Your task to perform on an android device: Go to Yahoo.com Image 0: 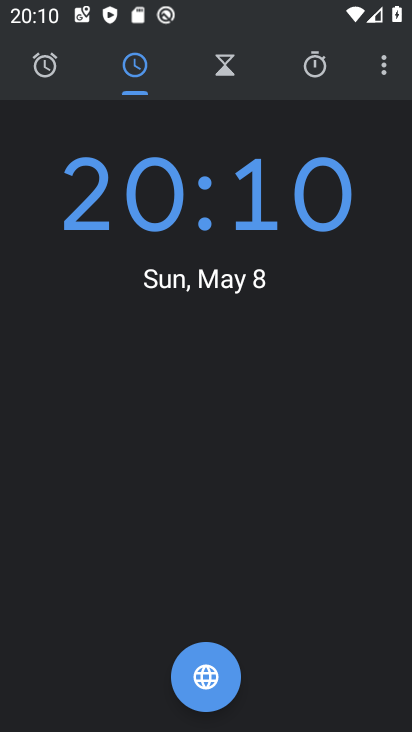
Step 0: press home button
Your task to perform on an android device: Go to Yahoo.com Image 1: 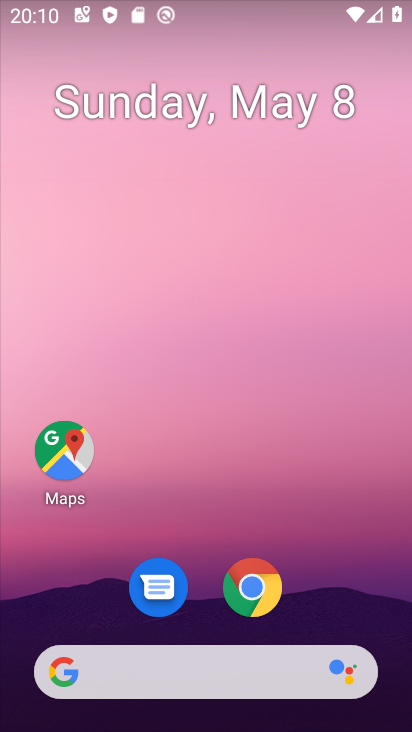
Step 1: click (254, 586)
Your task to perform on an android device: Go to Yahoo.com Image 2: 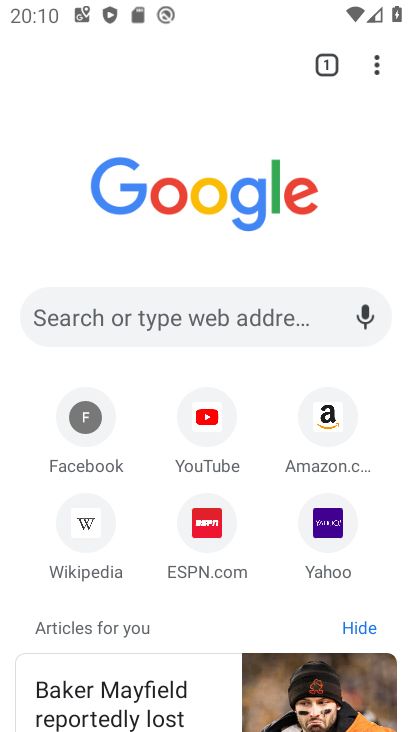
Step 2: click (188, 314)
Your task to perform on an android device: Go to Yahoo.com Image 3: 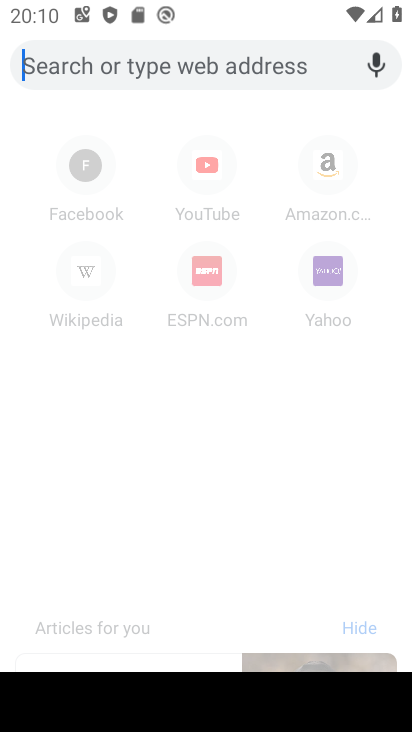
Step 3: click (101, 68)
Your task to perform on an android device: Go to Yahoo.com Image 4: 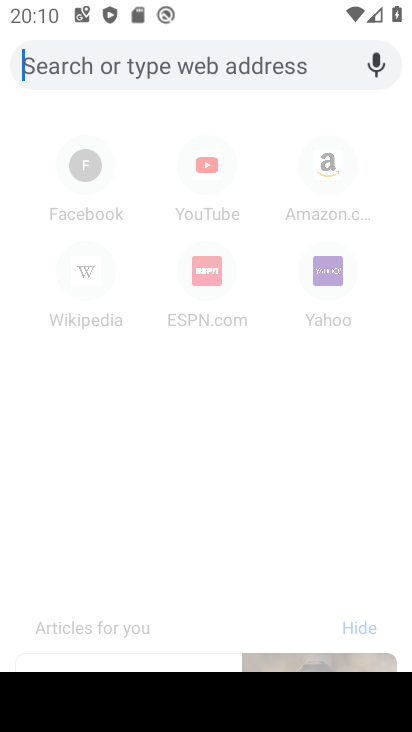
Step 4: type "Yahoo.com"
Your task to perform on an android device: Go to Yahoo.com Image 5: 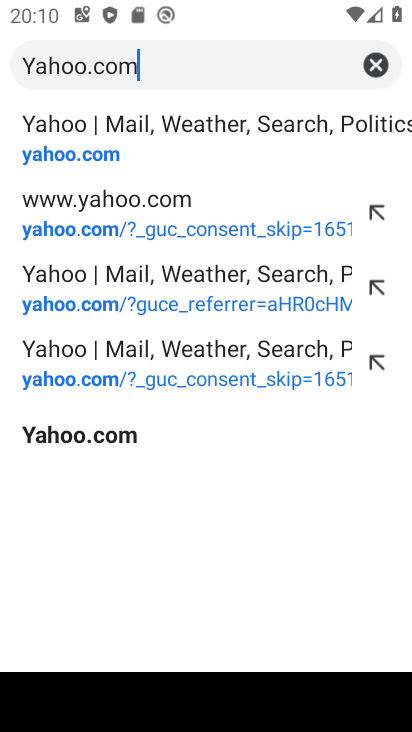
Step 5: type ""
Your task to perform on an android device: Go to Yahoo.com Image 6: 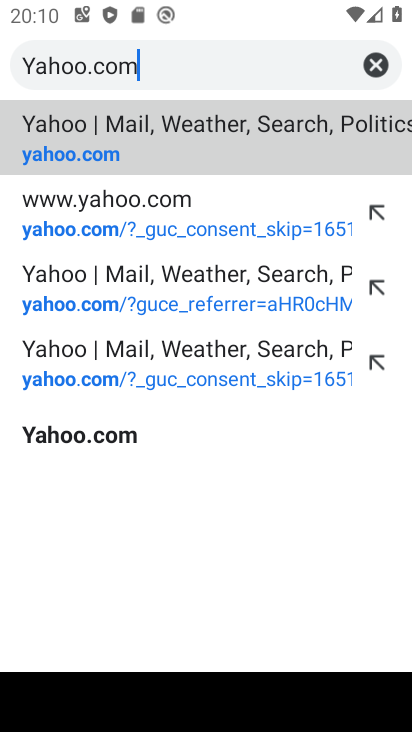
Step 6: click (114, 436)
Your task to perform on an android device: Go to Yahoo.com Image 7: 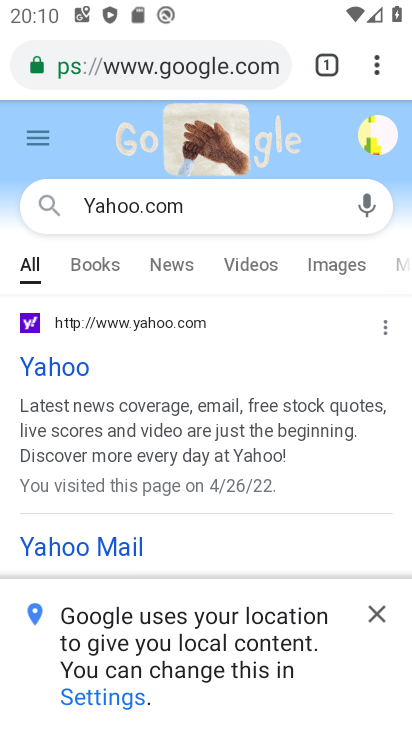
Step 7: click (381, 616)
Your task to perform on an android device: Go to Yahoo.com Image 8: 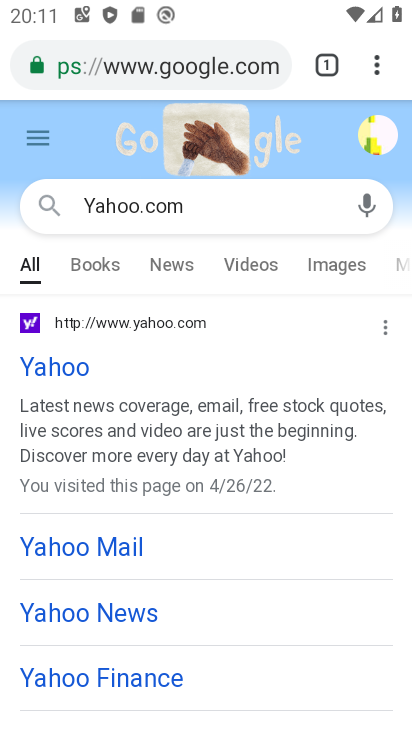
Step 8: click (84, 340)
Your task to perform on an android device: Go to Yahoo.com Image 9: 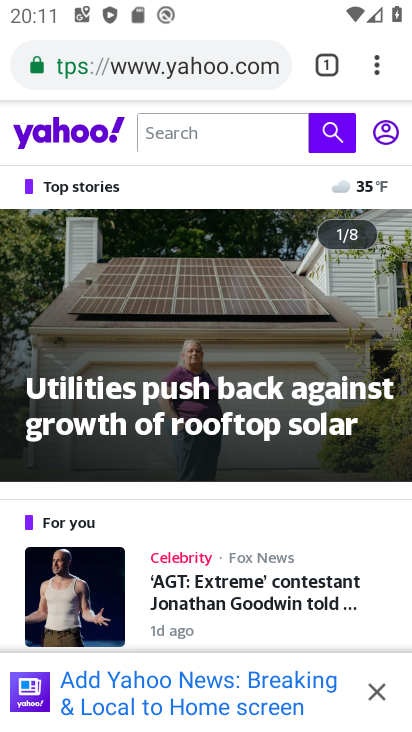
Step 9: task complete